Your task to perform on an android device: Show me popular videos on Youtube Image 0: 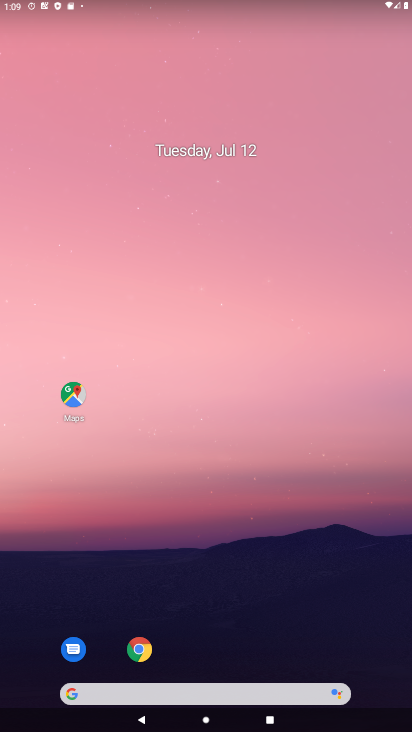
Step 0: drag from (389, 677) to (267, 34)
Your task to perform on an android device: Show me popular videos on Youtube Image 1: 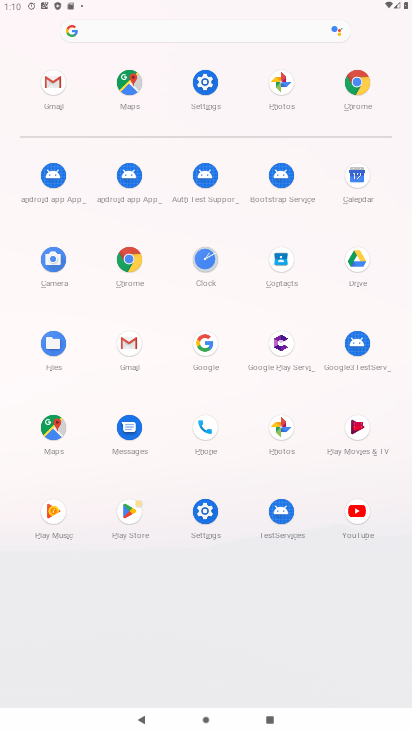
Step 1: click (361, 513)
Your task to perform on an android device: Show me popular videos on Youtube Image 2: 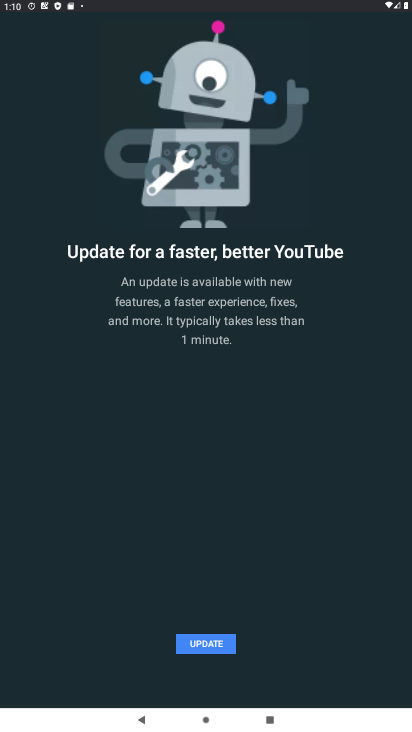
Step 2: click (210, 645)
Your task to perform on an android device: Show me popular videos on Youtube Image 3: 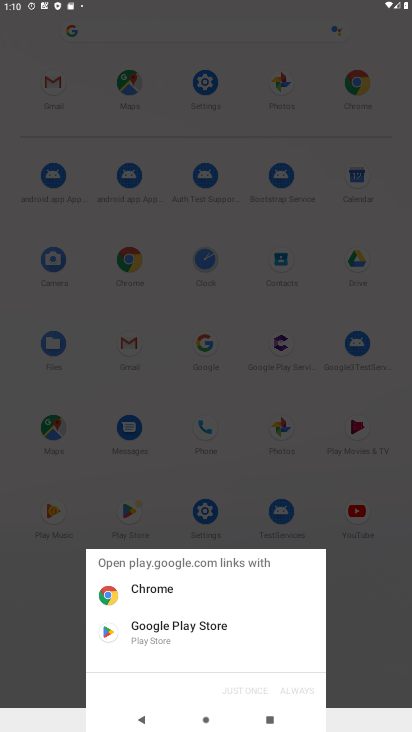
Step 3: click (196, 630)
Your task to perform on an android device: Show me popular videos on Youtube Image 4: 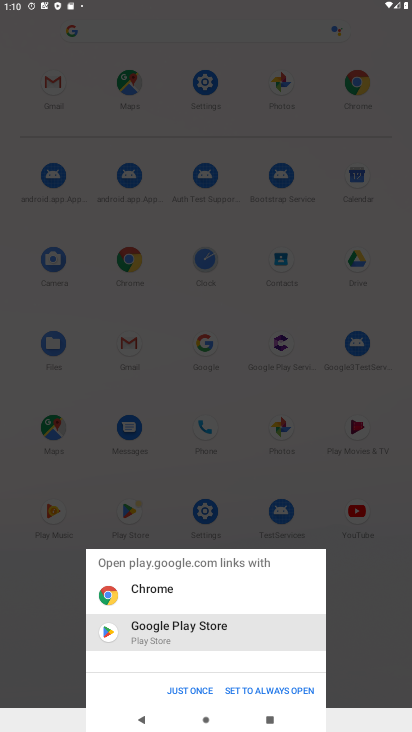
Step 4: click (201, 689)
Your task to perform on an android device: Show me popular videos on Youtube Image 5: 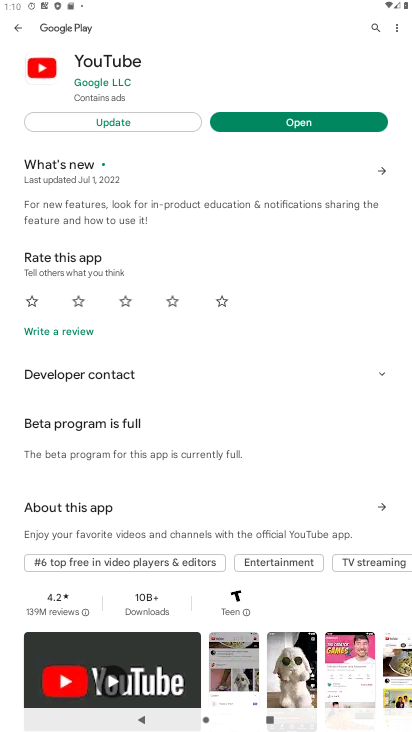
Step 5: click (155, 123)
Your task to perform on an android device: Show me popular videos on Youtube Image 6: 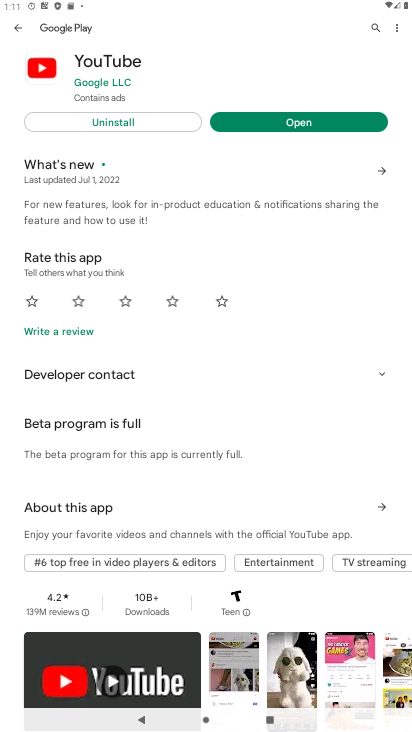
Step 6: click (280, 119)
Your task to perform on an android device: Show me popular videos on Youtube Image 7: 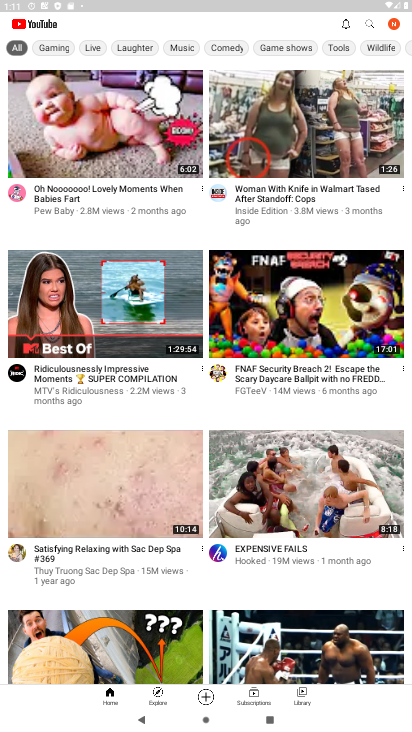
Step 7: click (150, 699)
Your task to perform on an android device: Show me popular videos on Youtube Image 8: 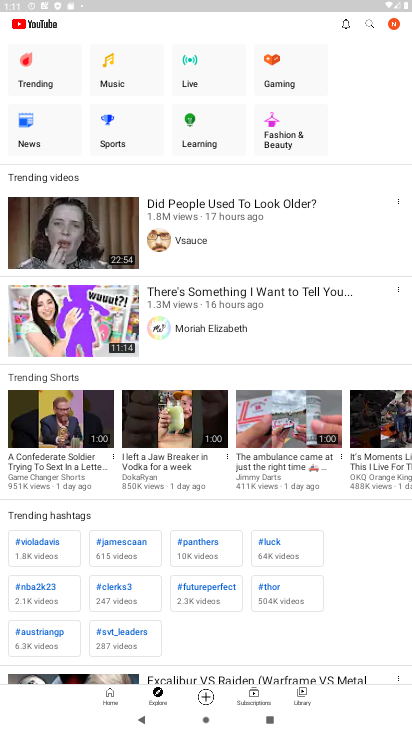
Step 8: click (23, 58)
Your task to perform on an android device: Show me popular videos on Youtube Image 9: 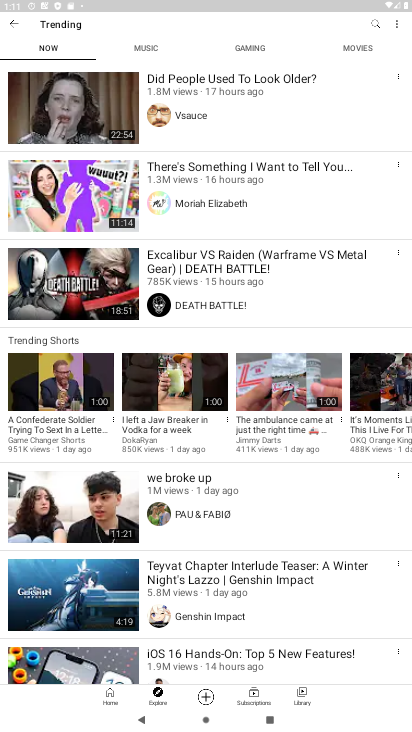
Step 9: task complete